Your task to perform on an android device: remove spam from my inbox in the gmail app Image 0: 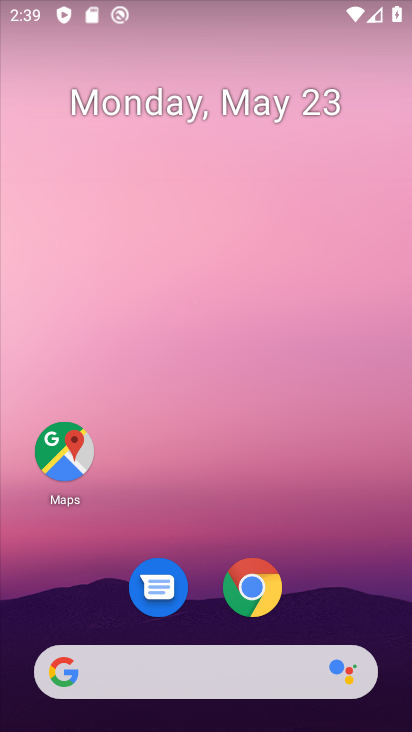
Step 0: drag from (205, 633) to (214, 369)
Your task to perform on an android device: remove spam from my inbox in the gmail app Image 1: 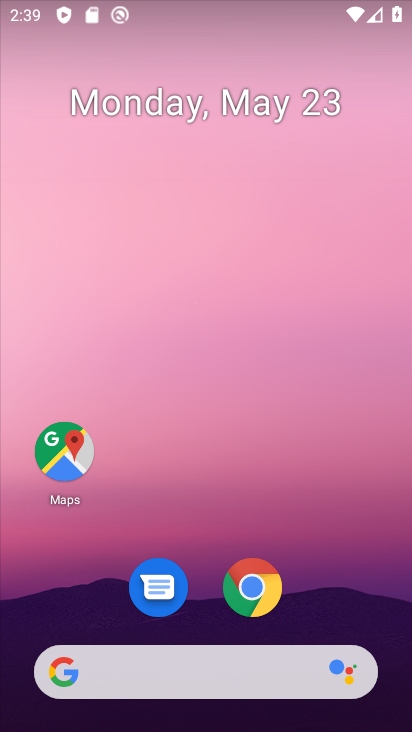
Step 1: drag from (174, 617) to (186, 233)
Your task to perform on an android device: remove spam from my inbox in the gmail app Image 2: 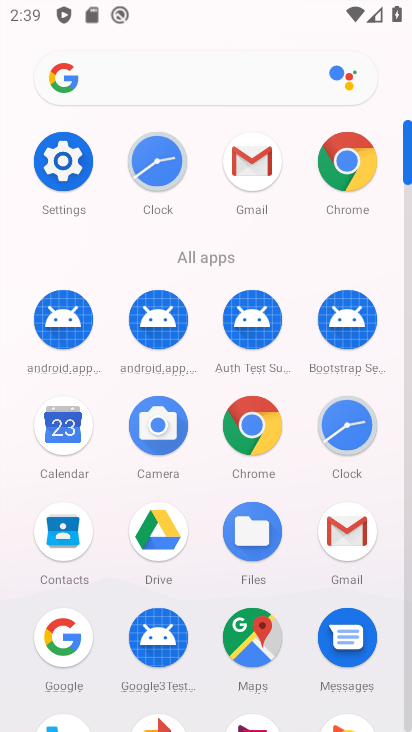
Step 2: click (365, 553)
Your task to perform on an android device: remove spam from my inbox in the gmail app Image 3: 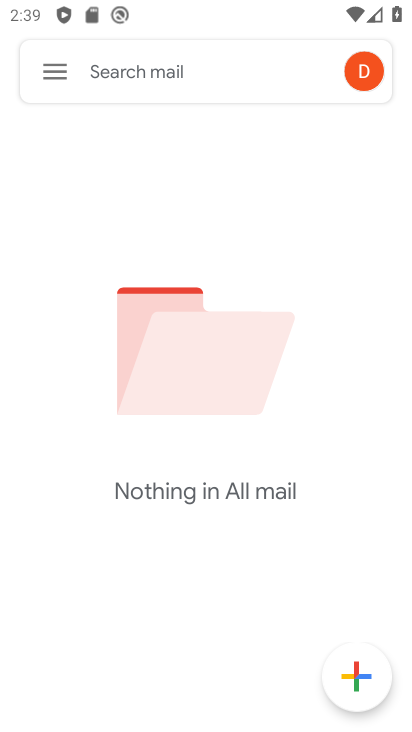
Step 3: click (56, 74)
Your task to perform on an android device: remove spam from my inbox in the gmail app Image 4: 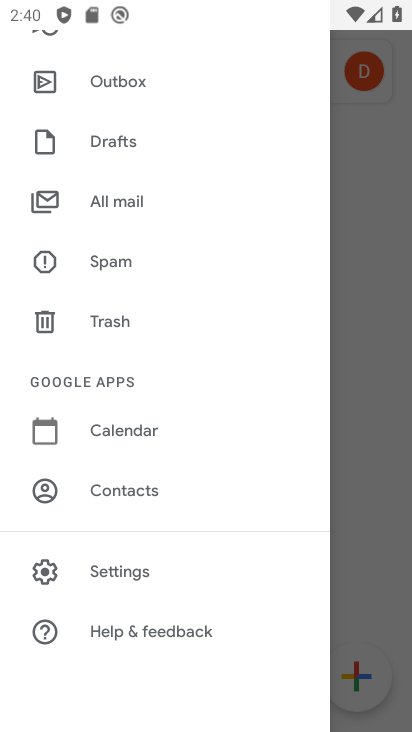
Step 4: click (108, 270)
Your task to perform on an android device: remove spam from my inbox in the gmail app Image 5: 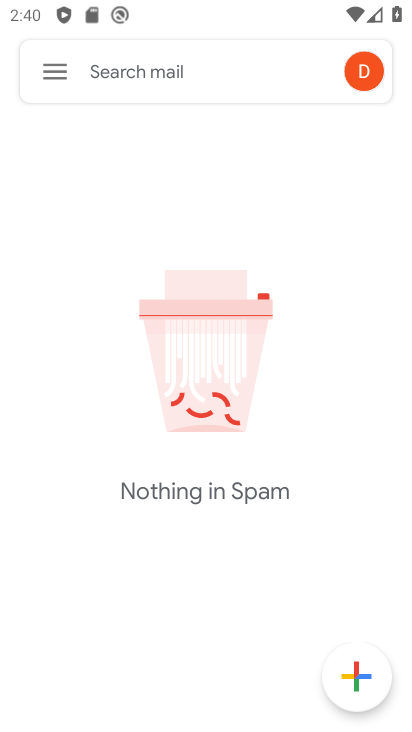
Step 5: task complete